Your task to perform on an android device: change text size in settings app Image 0: 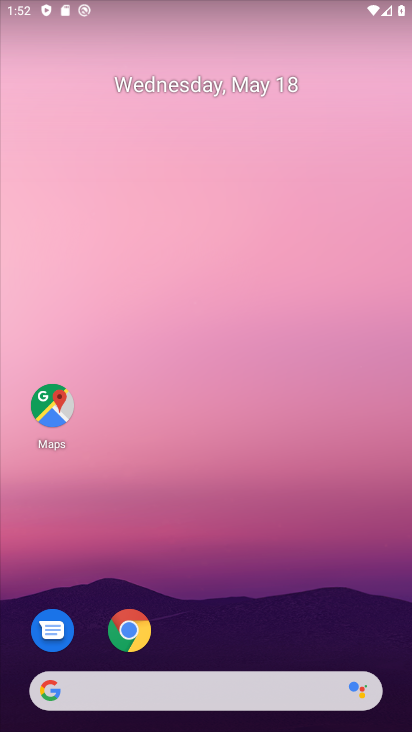
Step 0: drag from (196, 652) to (184, 260)
Your task to perform on an android device: change text size in settings app Image 1: 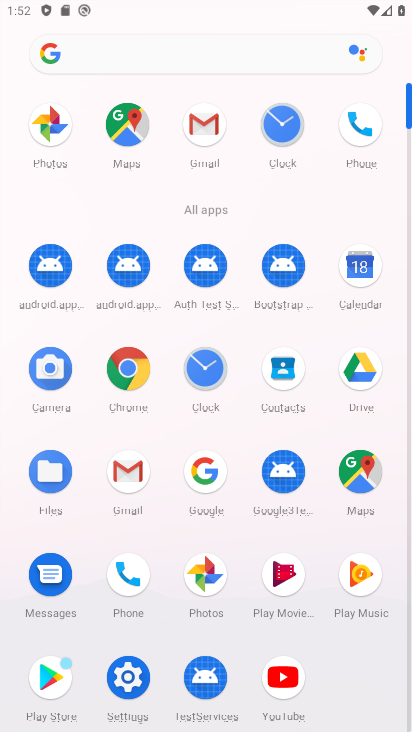
Step 1: click (118, 687)
Your task to perform on an android device: change text size in settings app Image 2: 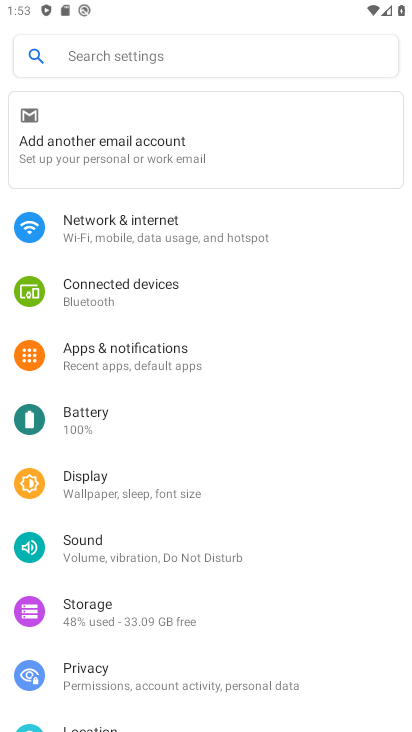
Step 2: click (112, 480)
Your task to perform on an android device: change text size in settings app Image 3: 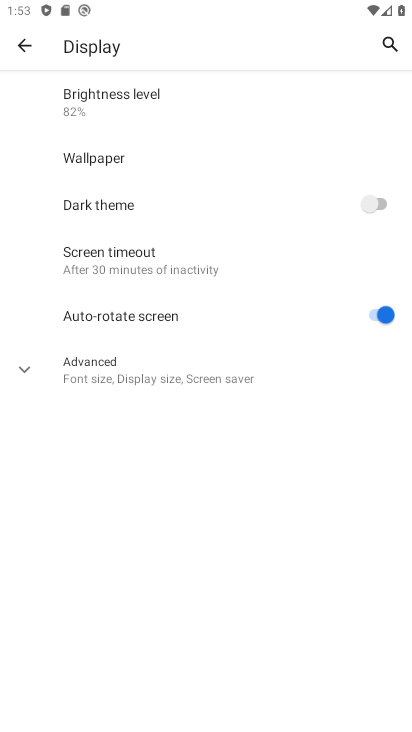
Step 3: click (108, 269)
Your task to perform on an android device: change text size in settings app Image 4: 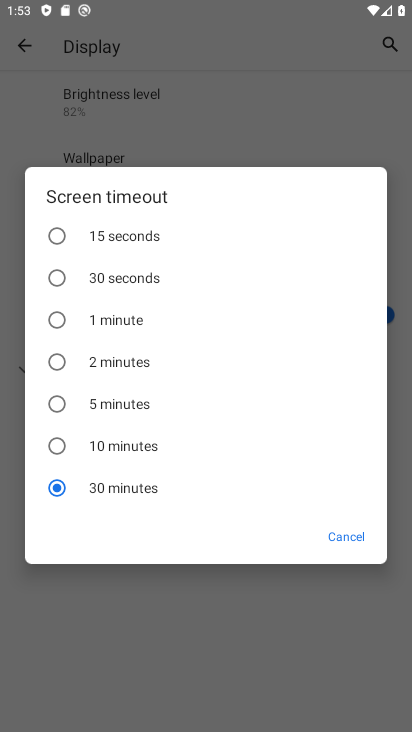
Step 4: click (348, 541)
Your task to perform on an android device: change text size in settings app Image 5: 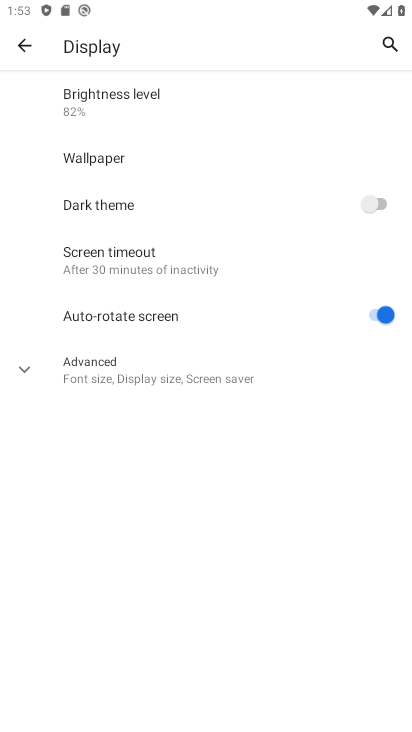
Step 5: click (139, 367)
Your task to perform on an android device: change text size in settings app Image 6: 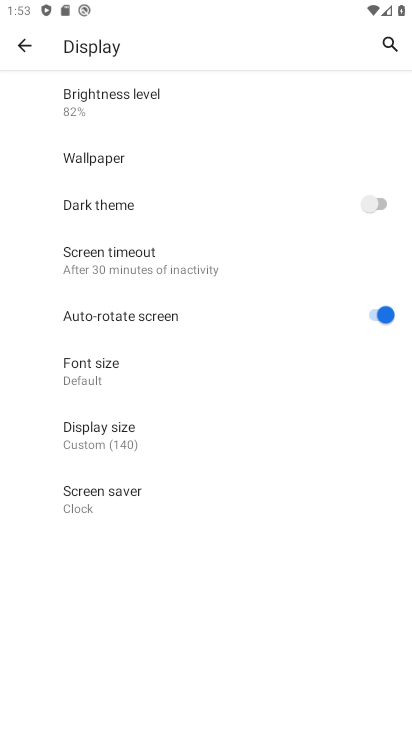
Step 6: click (106, 386)
Your task to perform on an android device: change text size in settings app Image 7: 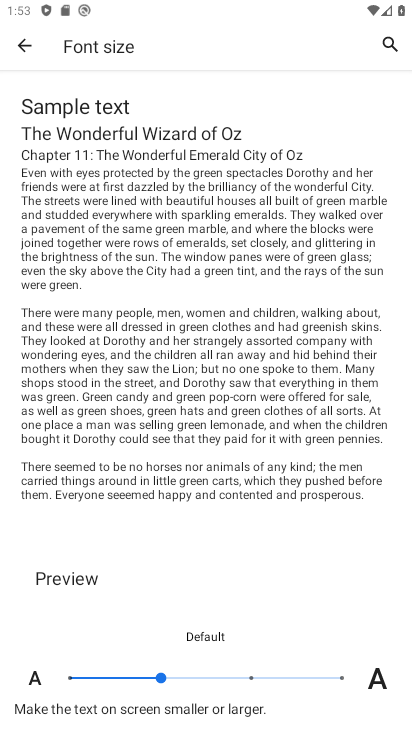
Step 7: click (74, 675)
Your task to perform on an android device: change text size in settings app Image 8: 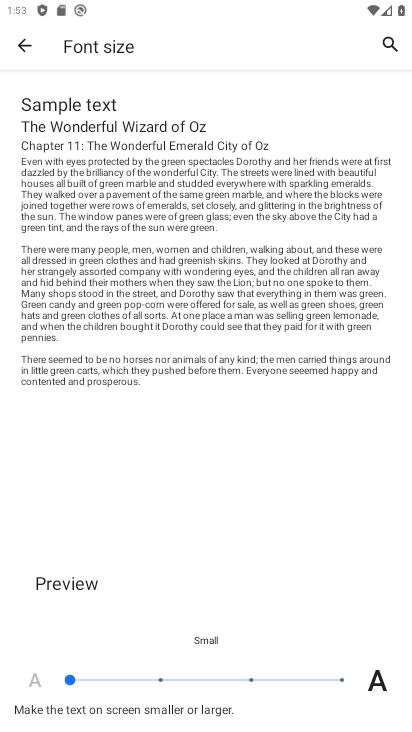
Step 8: task complete